Your task to perform on an android device: toggle notification dots Image 0: 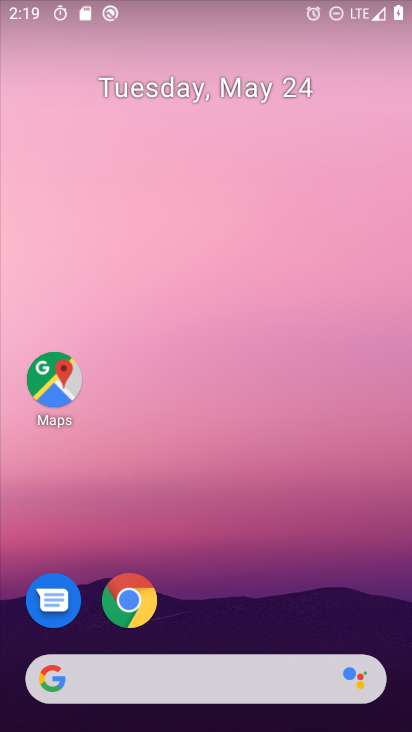
Step 0: drag from (324, 438) to (320, 103)
Your task to perform on an android device: toggle notification dots Image 1: 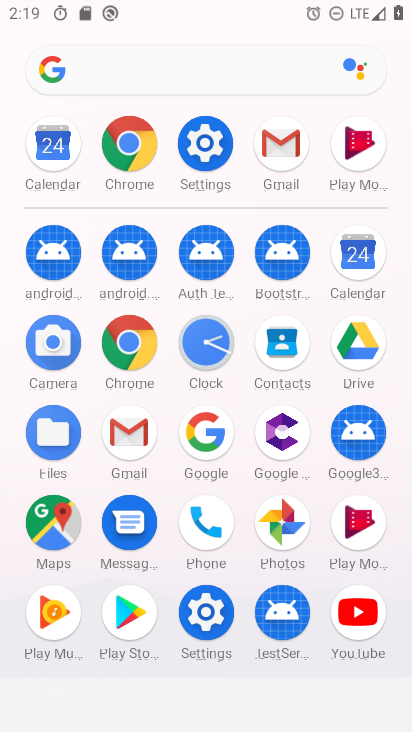
Step 1: click (204, 133)
Your task to perform on an android device: toggle notification dots Image 2: 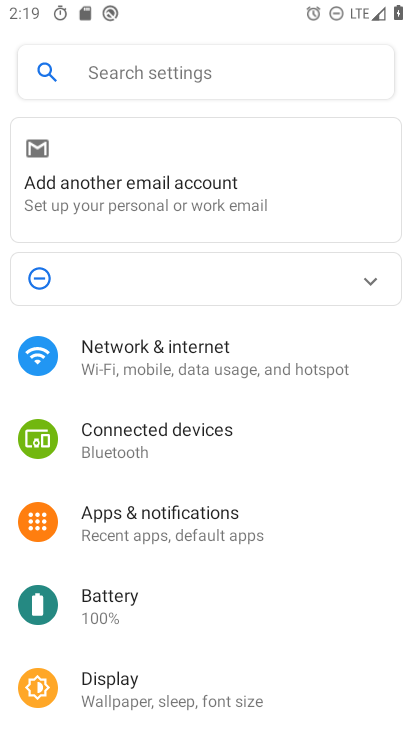
Step 2: drag from (212, 526) to (302, 130)
Your task to perform on an android device: toggle notification dots Image 3: 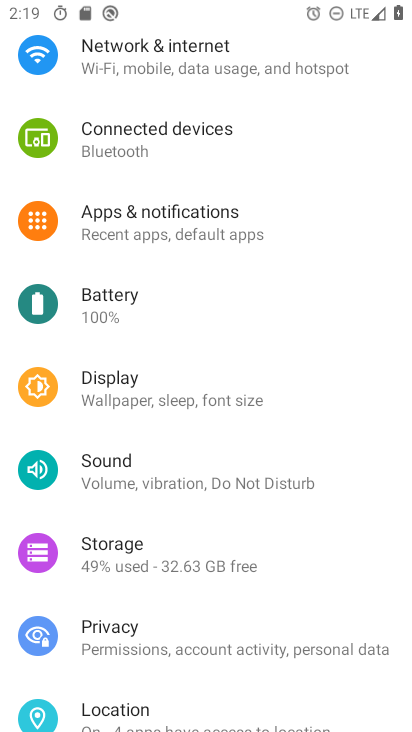
Step 3: drag from (235, 487) to (289, 170)
Your task to perform on an android device: toggle notification dots Image 4: 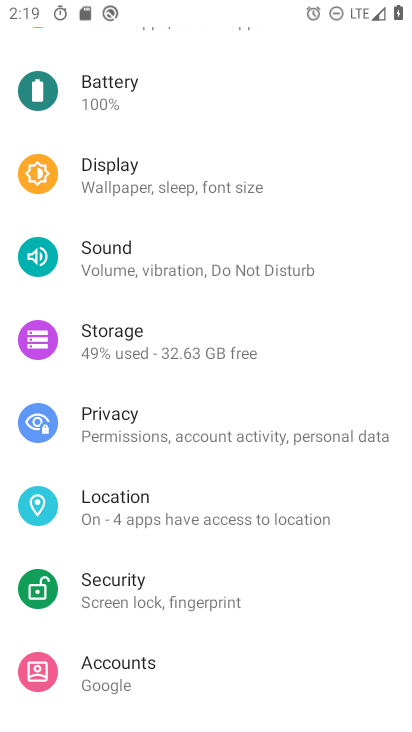
Step 4: drag from (266, 274) to (258, 491)
Your task to perform on an android device: toggle notification dots Image 5: 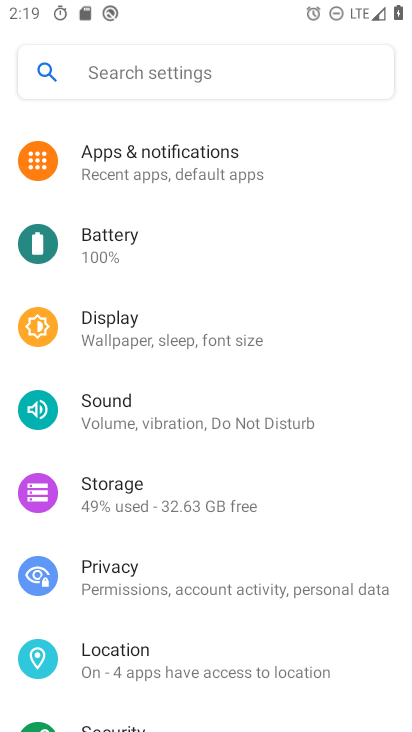
Step 5: click (183, 191)
Your task to perform on an android device: toggle notification dots Image 6: 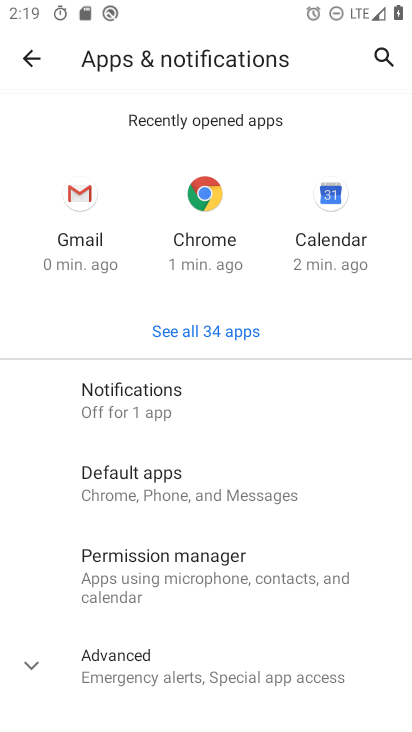
Step 6: click (175, 384)
Your task to perform on an android device: toggle notification dots Image 7: 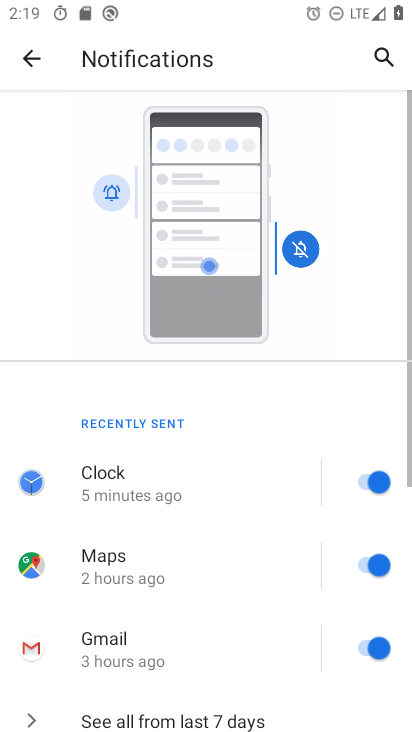
Step 7: drag from (294, 579) to (279, 128)
Your task to perform on an android device: toggle notification dots Image 8: 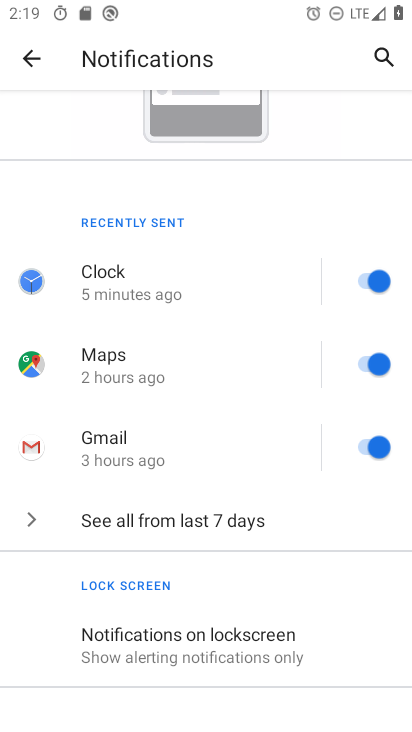
Step 8: drag from (266, 582) to (297, 336)
Your task to perform on an android device: toggle notification dots Image 9: 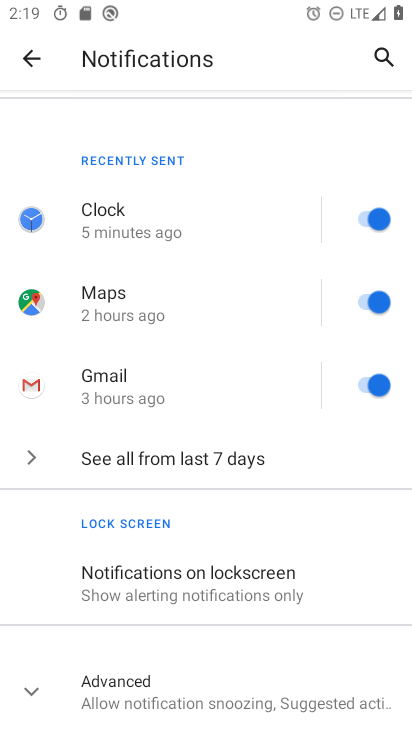
Step 9: click (179, 683)
Your task to perform on an android device: toggle notification dots Image 10: 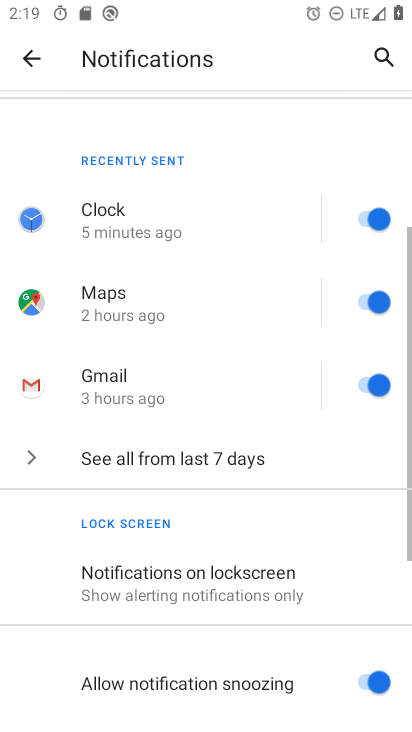
Step 10: drag from (197, 656) to (295, 169)
Your task to perform on an android device: toggle notification dots Image 11: 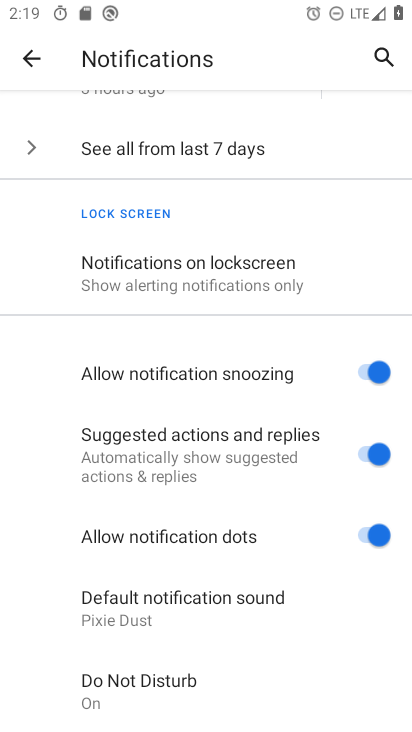
Step 11: click (374, 535)
Your task to perform on an android device: toggle notification dots Image 12: 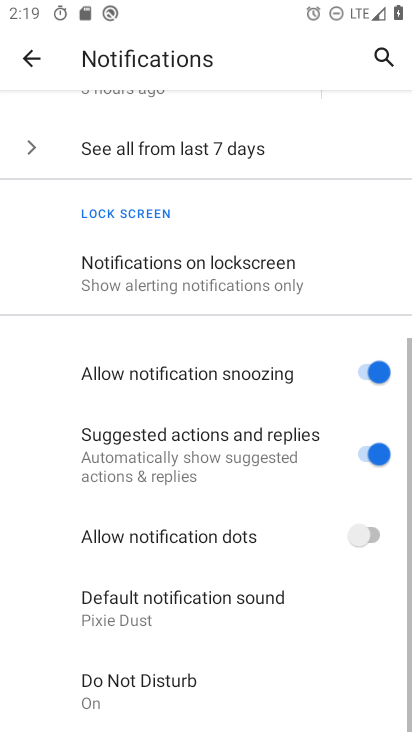
Step 12: task complete